Your task to perform on an android device: turn smart compose on in the gmail app Image 0: 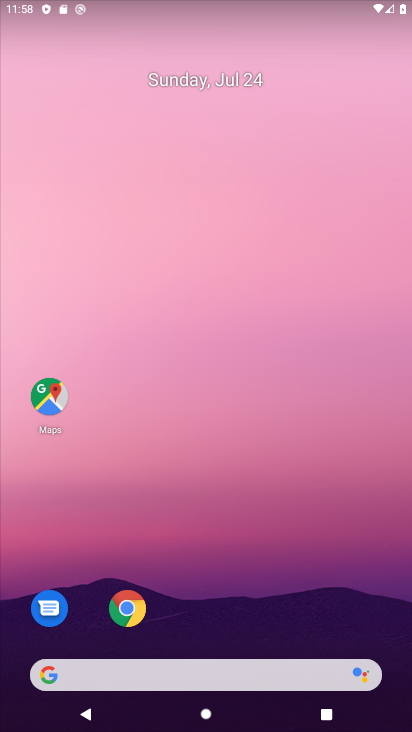
Step 0: drag from (25, 564) to (300, 39)
Your task to perform on an android device: turn smart compose on in the gmail app Image 1: 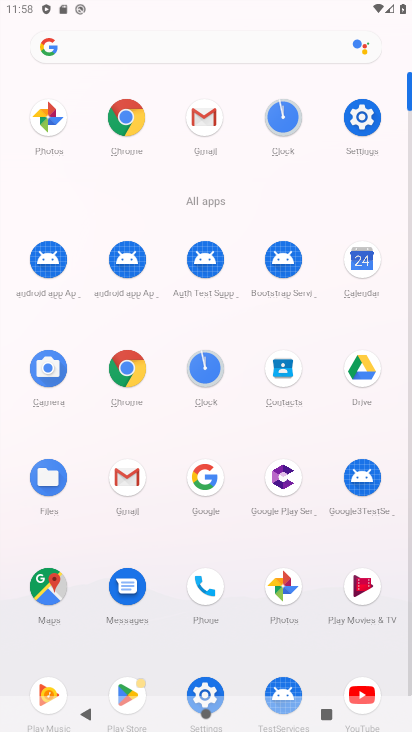
Step 1: click (206, 127)
Your task to perform on an android device: turn smart compose on in the gmail app Image 2: 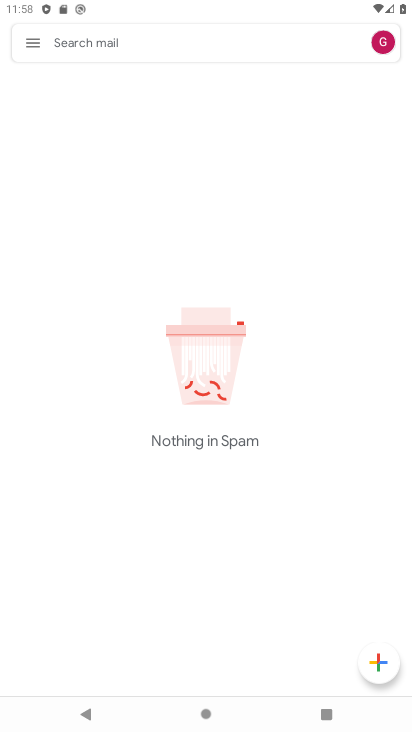
Step 2: click (29, 37)
Your task to perform on an android device: turn smart compose on in the gmail app Image 3: 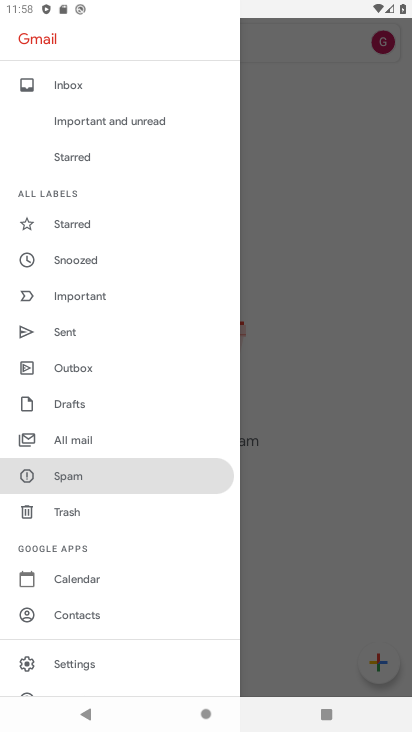
Step 3: click (88, 669)
Your task to perform on an android device: turn smart compose on in the gmail app Image 4: 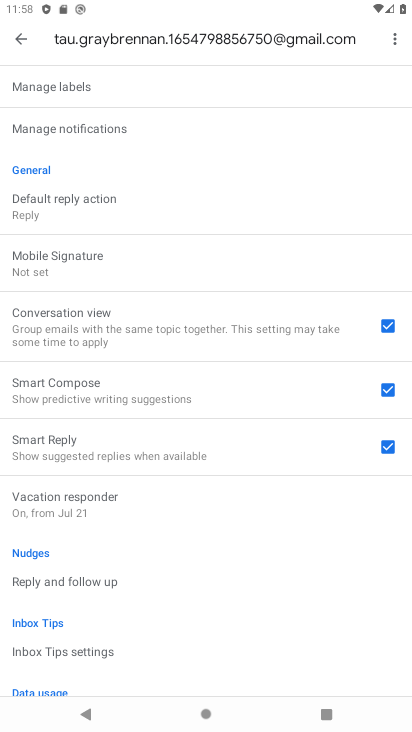
Step 4: task complete